Your task to perform on an android device: turn on translation in the chrome app Image 0: 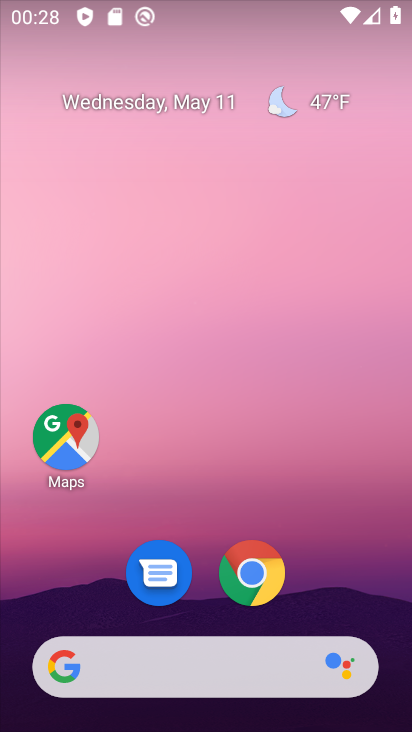
Step 0: press home button
Your task to perform on an android device: turn on translation in the chrome app Image 1: 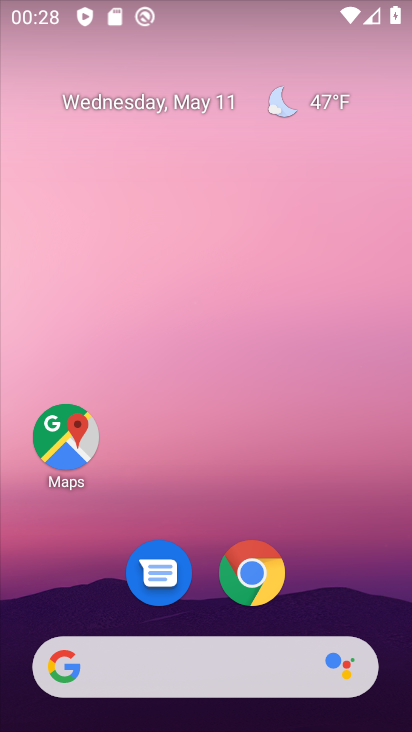
Step 1: click (248, 578)
Your task to perform on an android device: turn on translation in the chrome app Image 2: 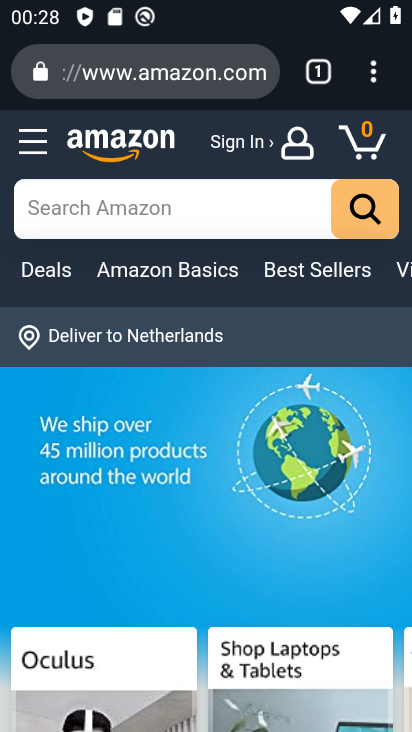
Step 2: drag from (377, 61) to (175, 591)
Your task to perform on an android device: turn on translation in the chrome app Image 3: 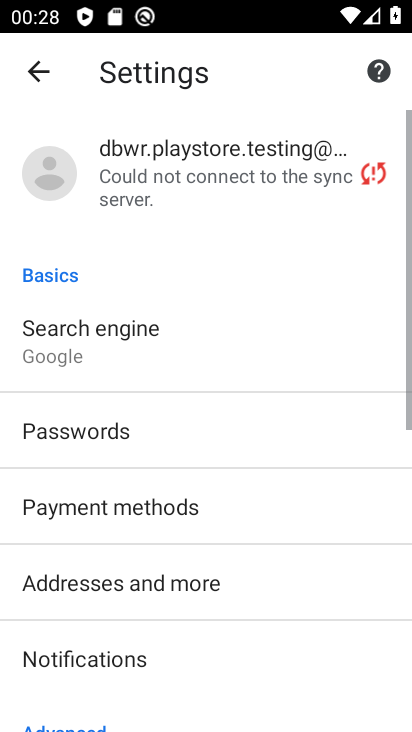
Step 3: drag from (211, 637) to (224, 210)
Your task to perform on an android device: turn on translation in the chrome app Image 4: 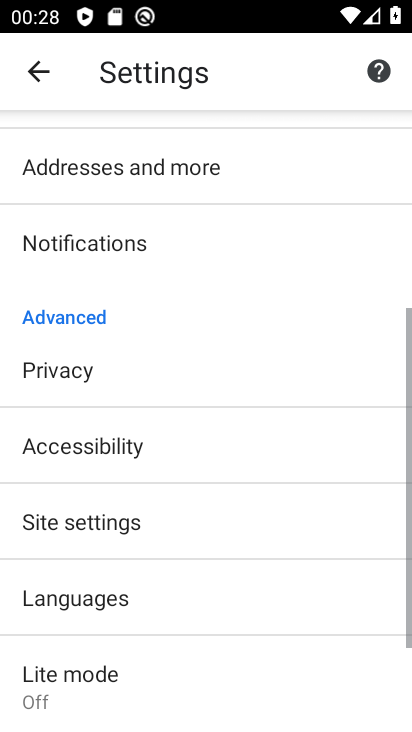
Step 4: drag from (220, 473) to (221, 344)
Your task to perform on an android device: turn on translation in the chrome app Image 5: 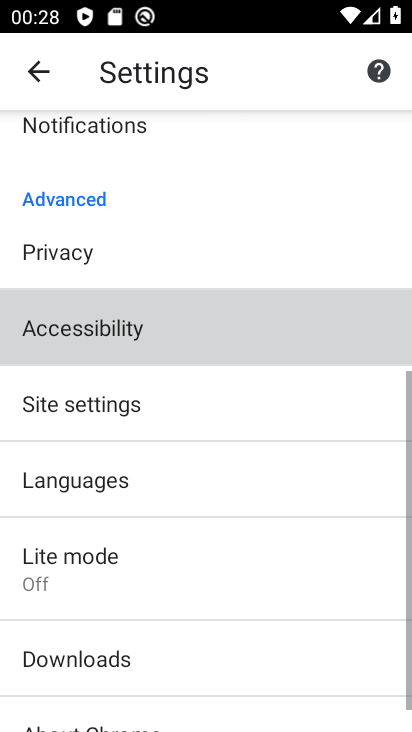
Step 5: drag from (213, 538) to (208, 413)
Your task to perform on an android device: turn on translation in the chrome app Image 6: 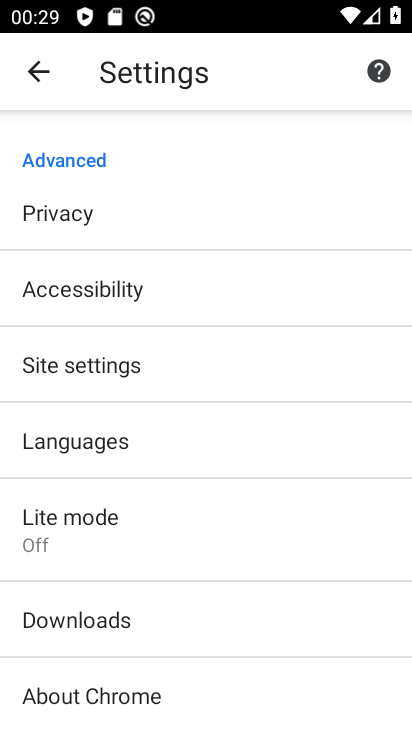
Step 6: click (92, 436)
Your task to perform on an android device: turn on translation in the chrome app Image 7: 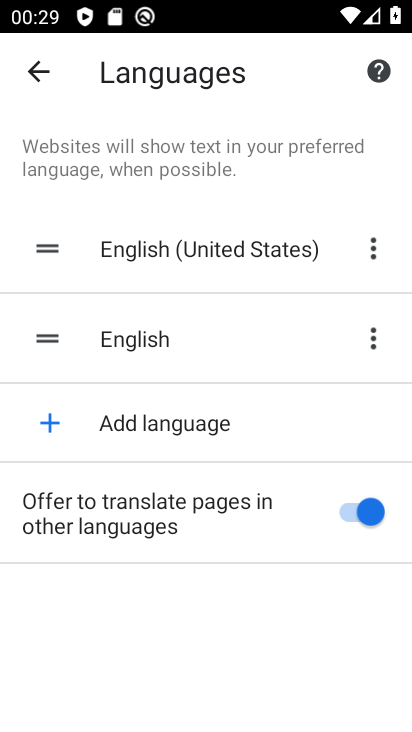
Step 7: task complete